Your task to perform on an android device: turn pop-ups off in chrome Image 0: 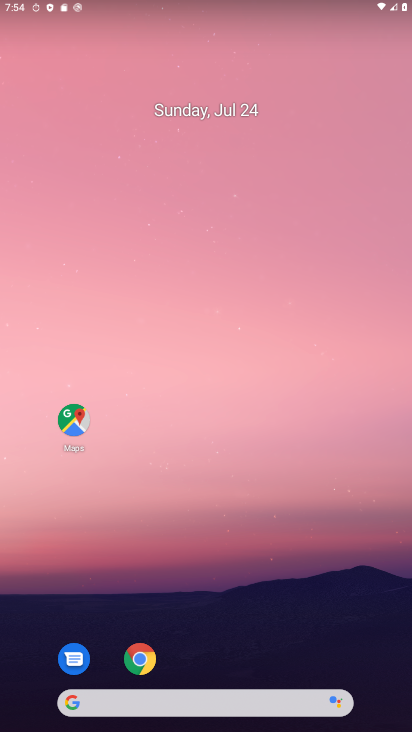
Step 0: drag from (268, 695) to (281, 90)
Your task to perform on an android device: turn pop-ups off in chrome Image 1: 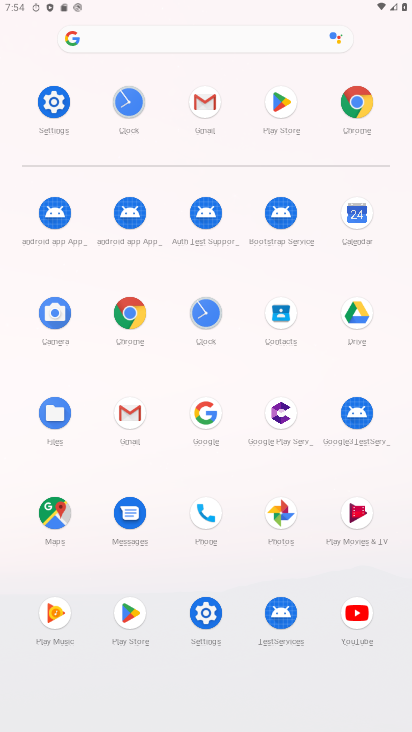
Step 1: click (361, 113)
Your task to perform on an android device: turn pop-ups off in chrome Image 2: 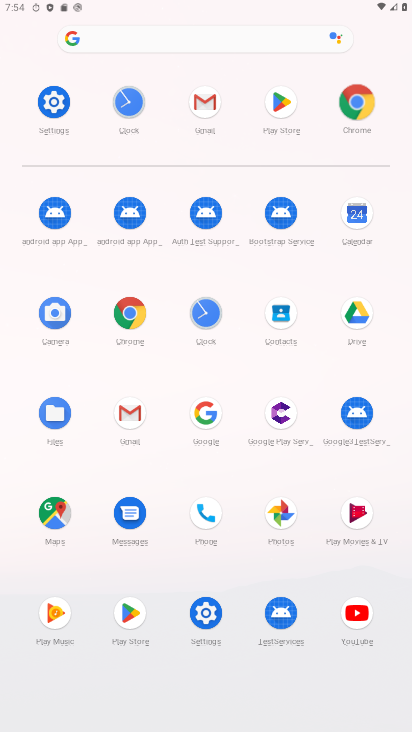
Step 2: click (360, 114)
Your task to perform on an android device: turn pop-ups off in chrome Image 3: 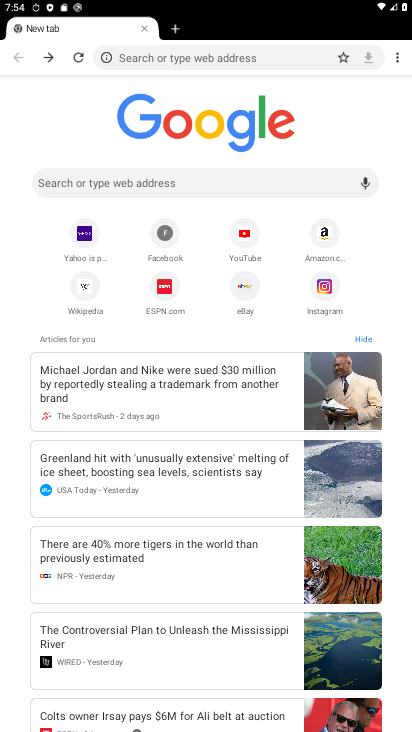
Step 3: drag from (394, 52) to (278, 259)
Your task to perform on an android device: turn pop-ups off in chrome Image 4: 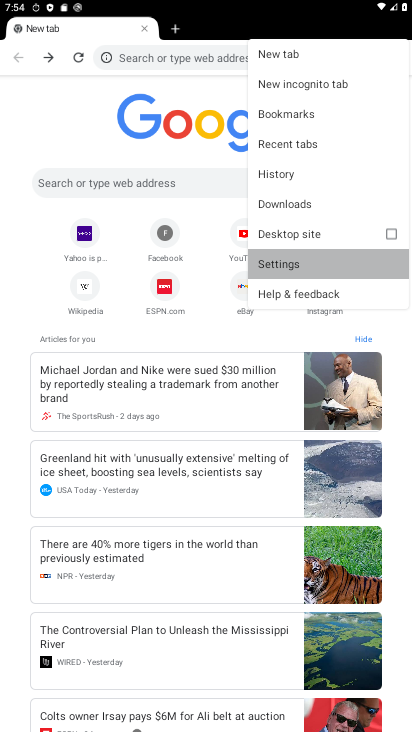
Step 4: click (276, 259)
Your task to perform on an android device: turn pop-ups off in chrome Image 5: 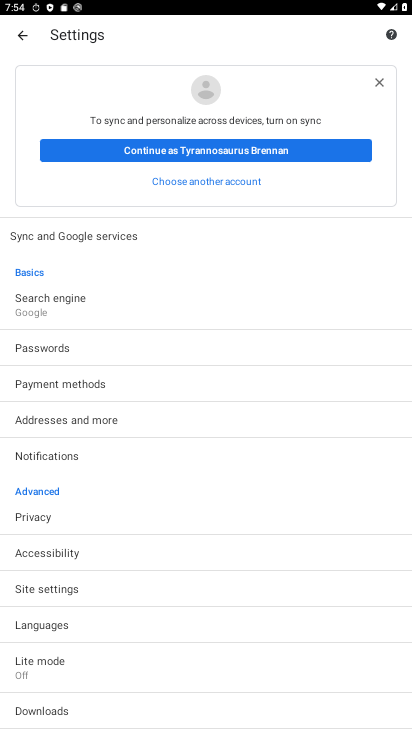
Step 5: drag from (28, 633) to (73, 184)
Your task to perform on an android device: turn pop-ups off in chrome Image 6: 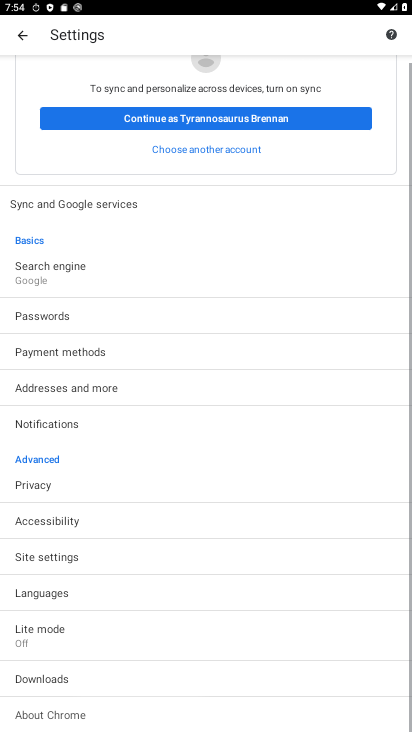
Step 6: drag from (74, 605) to (128, 280)
Your task to perform on an android device: turn pop-ups off in chrome Image 7: 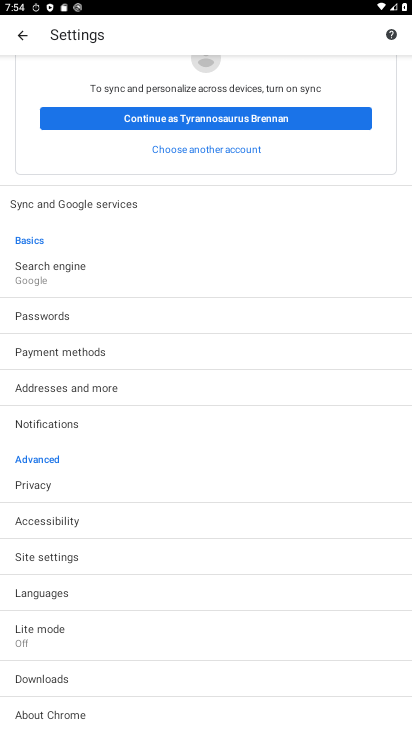
Step 7: click (38, 556)
Your task to perform on an android device: turn pop-ups off in chrome Image 8: 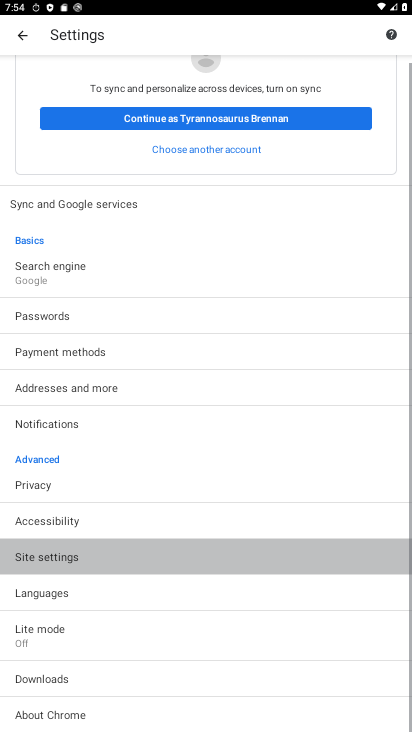
Step 8: click (37, 555)
Your task to perform on an android device: turn pop-ups off in chrome Image 9: 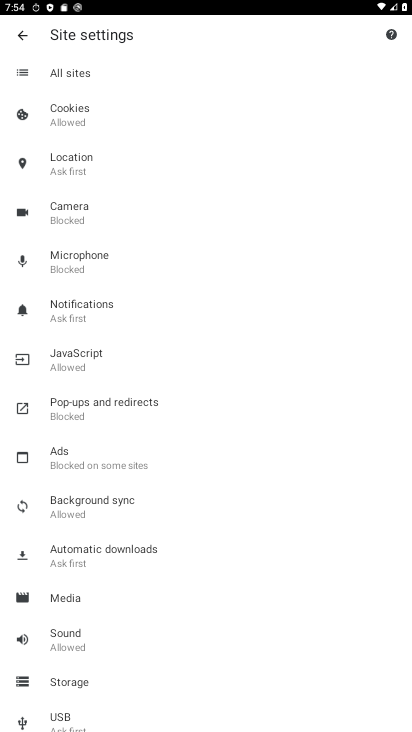
Step 9: click (83, 406)
Your task to perform on an android device: turn pop-ups off in chrome Image 10: 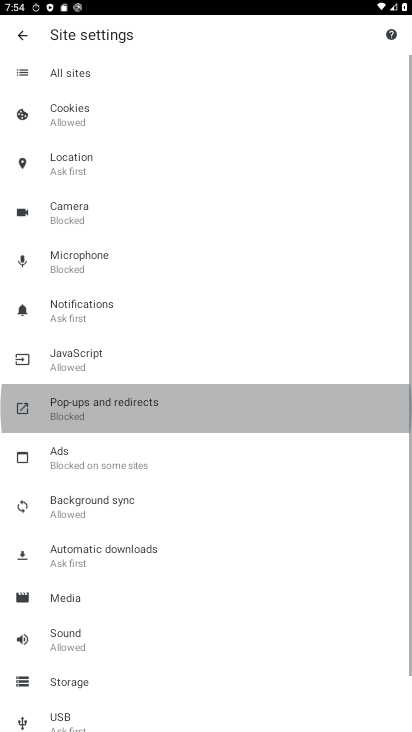
Step 10: click (80, 411)
Your task to perform on an android device: turn pop-ups off in chrome Image 11: 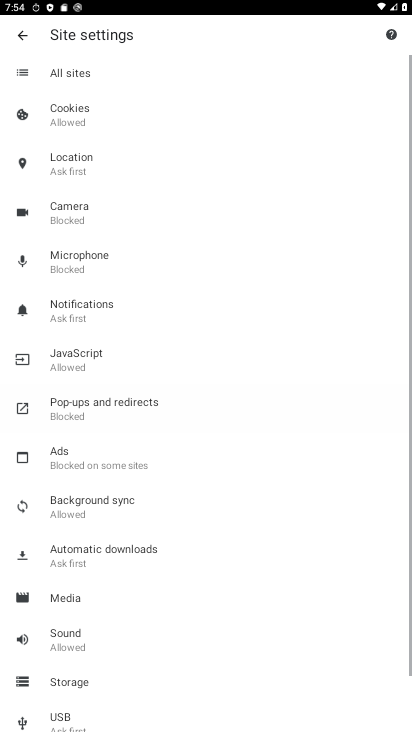
Step 11: click (78, 409)
Your task to perform on an android device: turn pop-ups off in chrome Image 12: 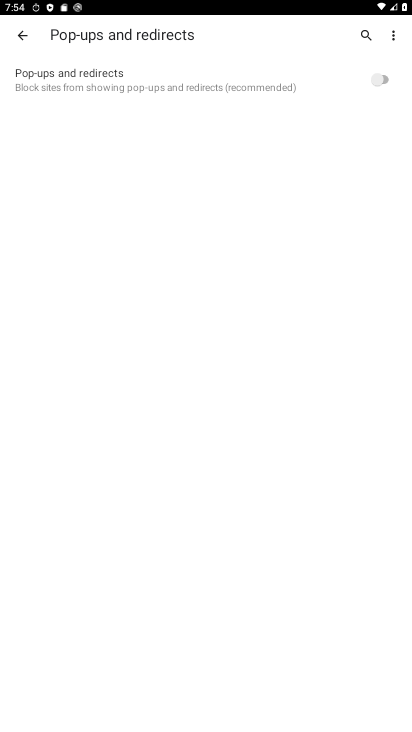
Step 12: task complete